Your task to perform on an android device: check android version Image 0: 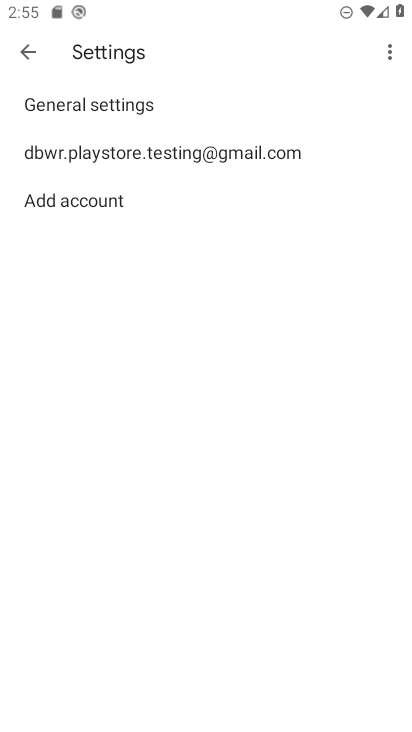
Step 0: press home button
Your task to perform on an android device: check android version Image 1: 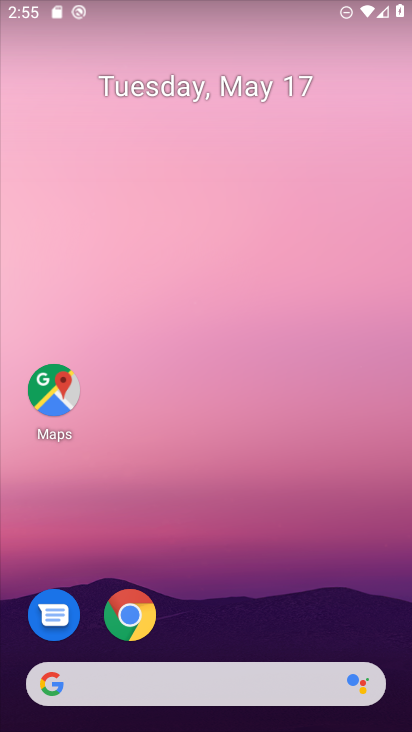
Step 1: drag from (183, 713) to (183, 193)
Your task to perform on an android device: check android version Image 2: 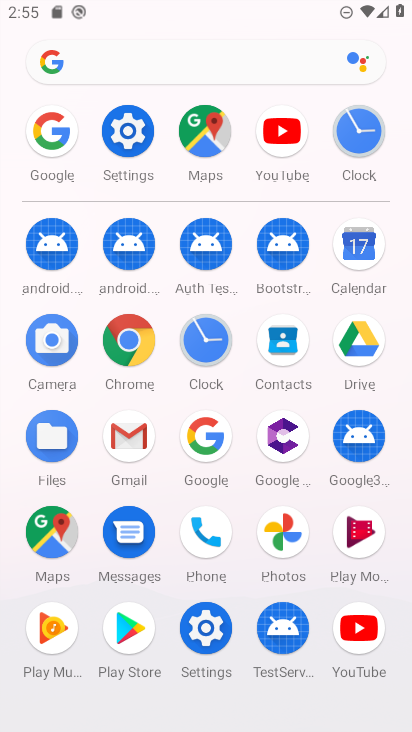
Step 2: click (121, 126)
Your task to perform on an android device: check android version Image 3: 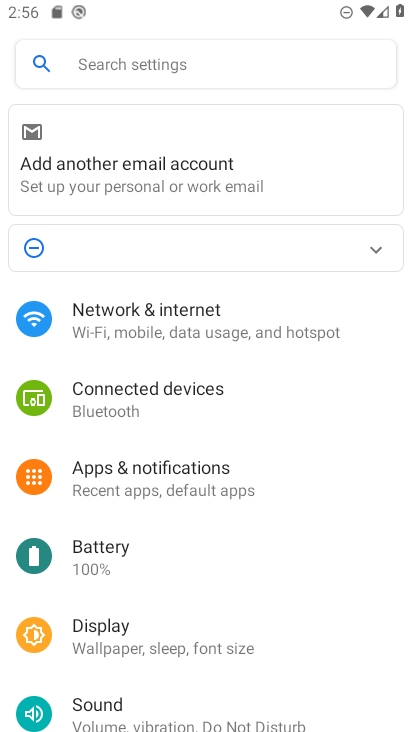
Step 3: drag from (150, 694) to (173, 359)
Your task to perform on an android device: check android version Image 4: 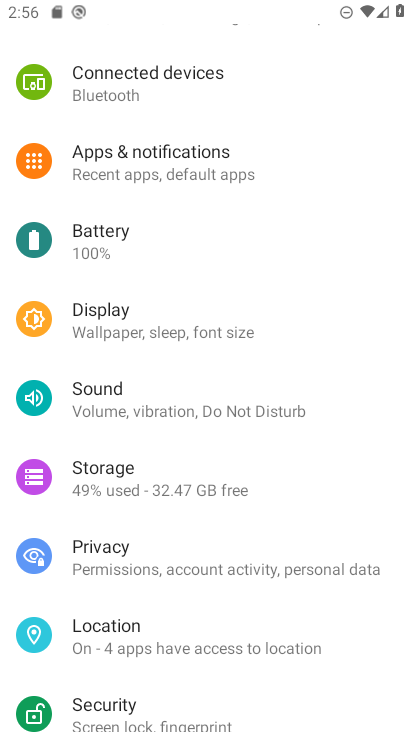
Step 4: drag from (167, 697) to (167, 231)
Your task to perform on an android device: check android version Image 5: 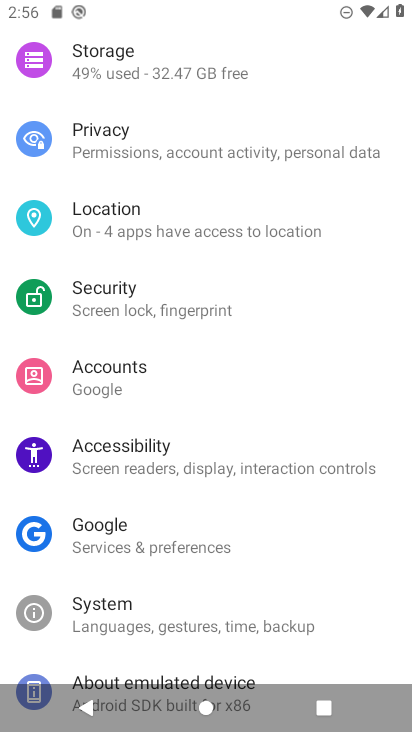
Step 5: drag from (165, 655) to (166, 311)
Your task to perform on an android device: check android version Image 6: 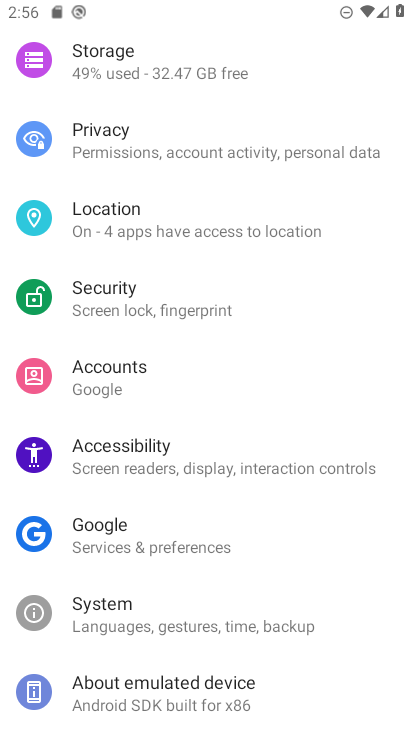
Step 6: drag from (141, 698) to (162, 419)
Your task to perform on an android device: check android version Image 7: 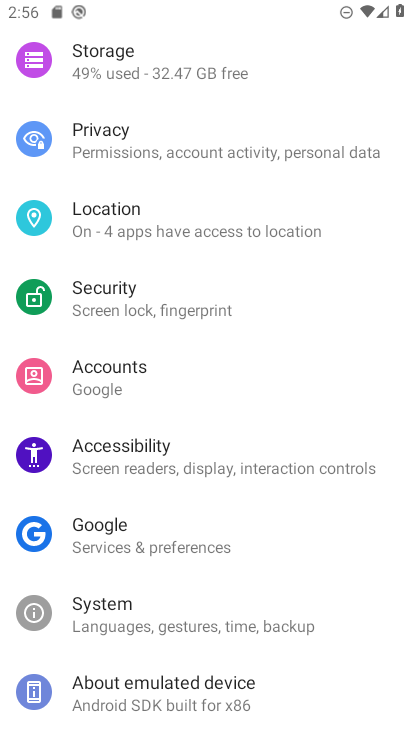
Step 7: drag from (147, 679) to (146, 321)
Your task to perform on an android device: check android version Image 8: 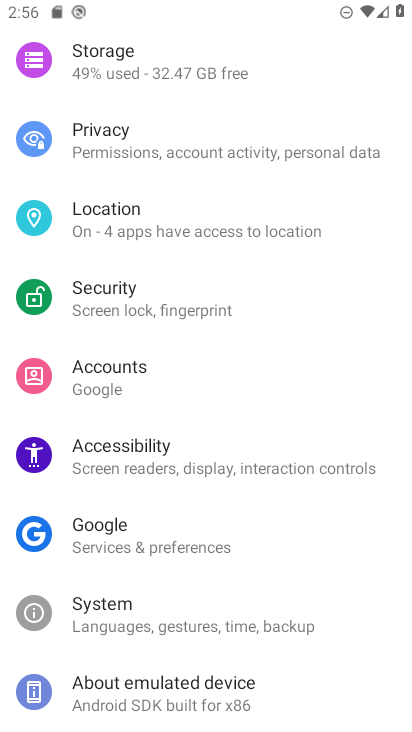
Step 8: click (137, 688)
Your task to perform on an android device: check android version Image 9: 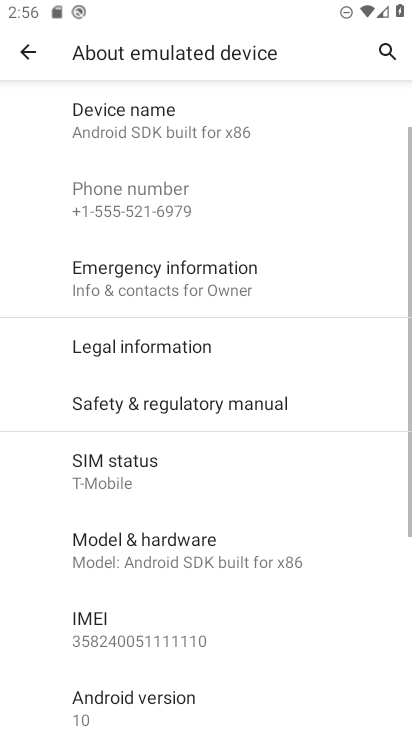
Step 9: drag from (163, 684) to (165, 440)
Your task to perform on an android device: check android version Image 10: 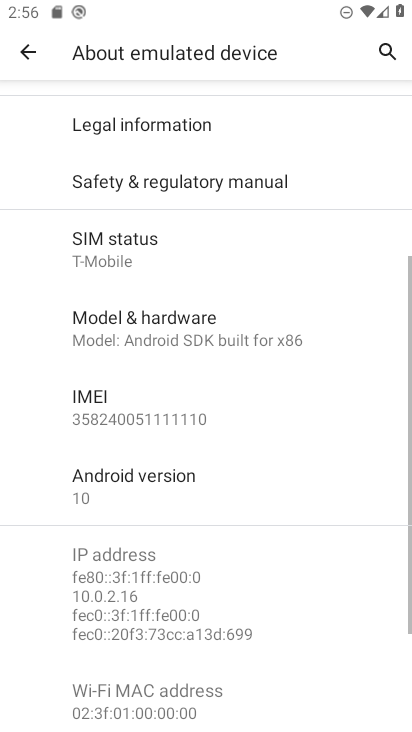
Step 10: click (138, 476)
Your task to perform on an android device: check android version Image 11: 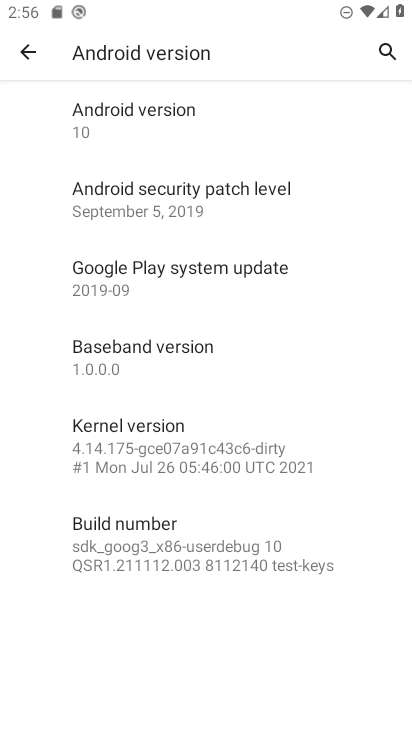
Step 11: task complete